Your task to perform on an android device: What's on my calendar tomorrow? Image 0: 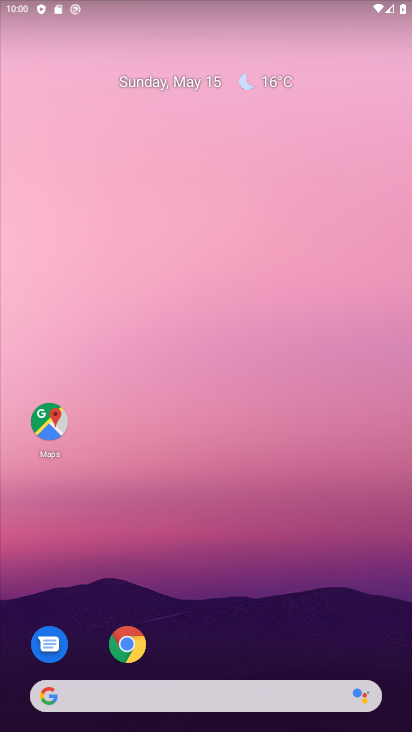
Step 0: drag from (259, 622) to (258, 172)
Your task to perform on an android device: What's on my calendar tomorrow? Image 1: 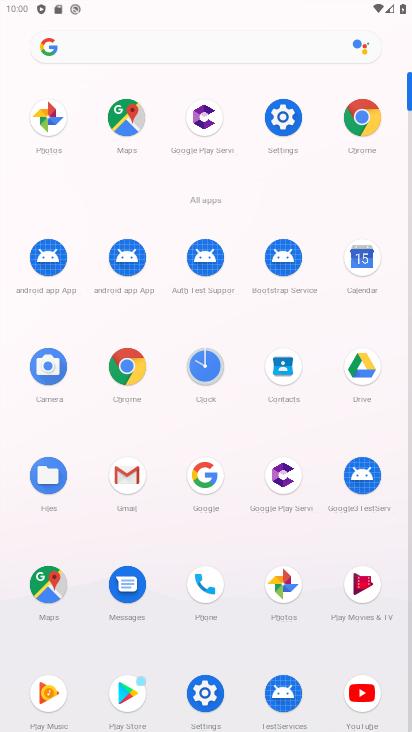
Step 1: click (355, 250)
Your task to perform on an android device: What's on my calendar tomorrow? Image 2: 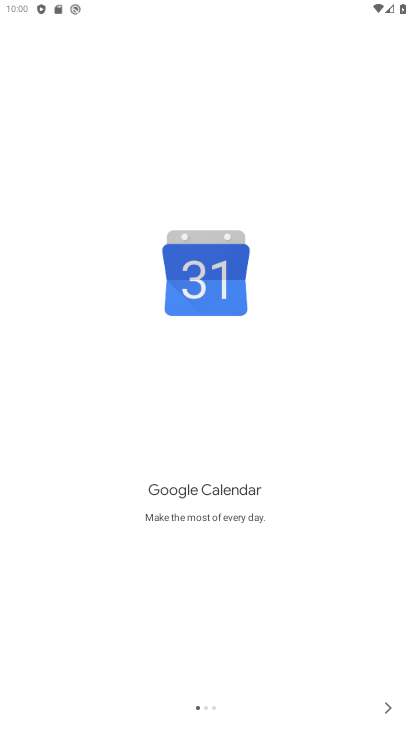
Step 2: click (384, 711)
Your task to perform on an android device: What's on my calendar tomorrow? Image 3: 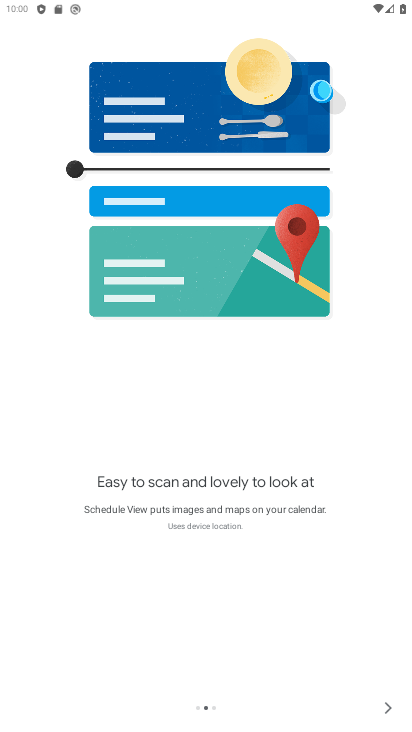
Step 3: click (382, 710)
Your task to perform on an android device: What's on my calendar tomorrow? Image 4: 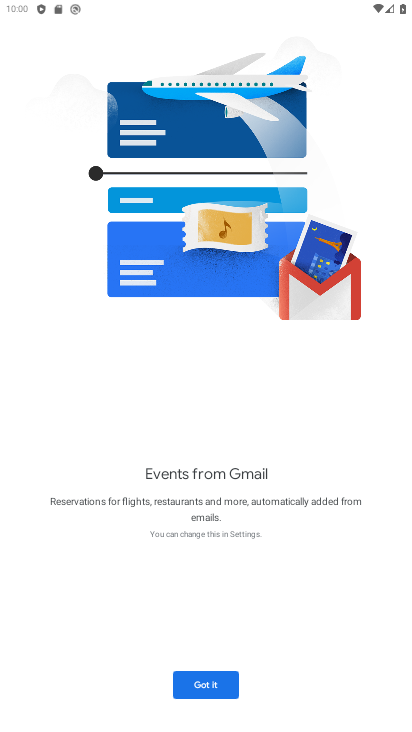
Step 4: click (217, 690)
Your task to perform on an android device: What's on my calendar tomorrow? Image 5: 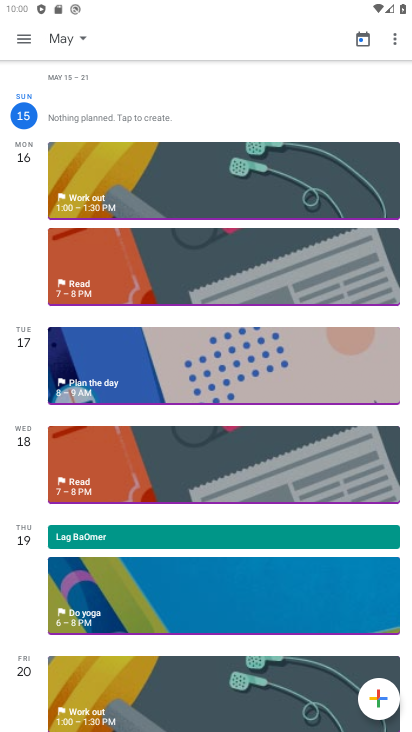
Step 5: click (23, 42)
Your task to perform on an android device: What's on my calendar tomorrow? Image 6: 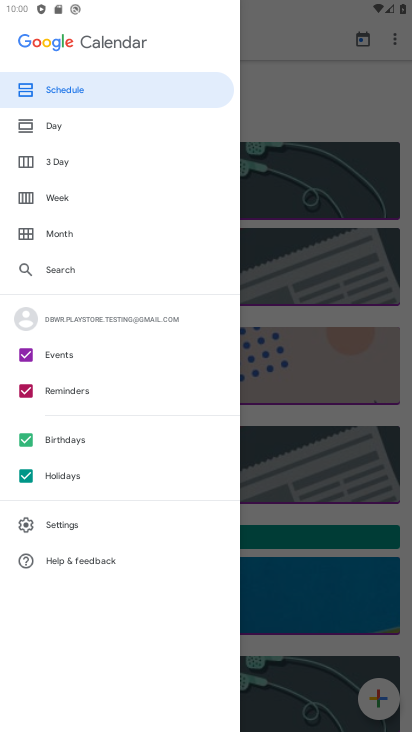
Step 6: click (65, 128)
Your task to perform on an android device: What's on my calendar tomorrow? Image 7: 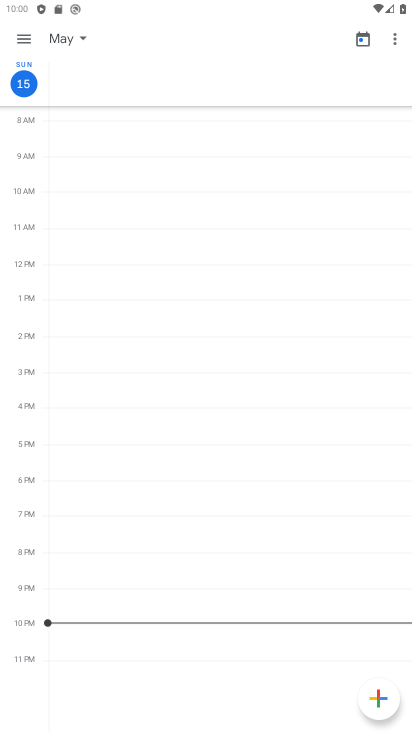
Step 7: click (77, 39)
Your task to perform on an android device: What's on my calendar tomorrow? Image 8: 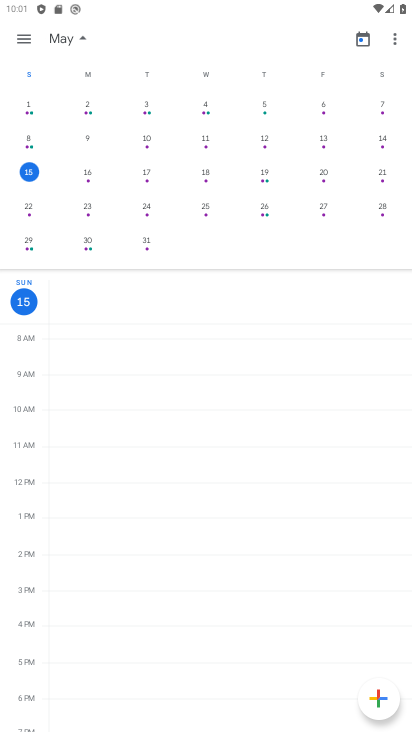
Step 8: click (90, 171)
Your task to perform on an android device: What's on my calendar tomorrow? Image 9: 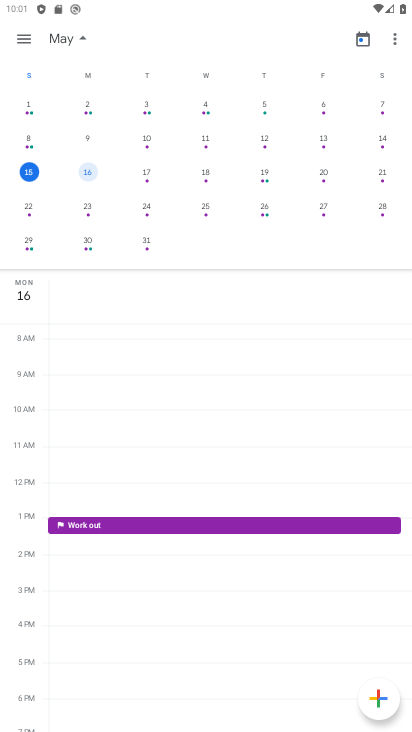
Step 9: task complete